Your task to perform on an android device: turn off location history Image 0: 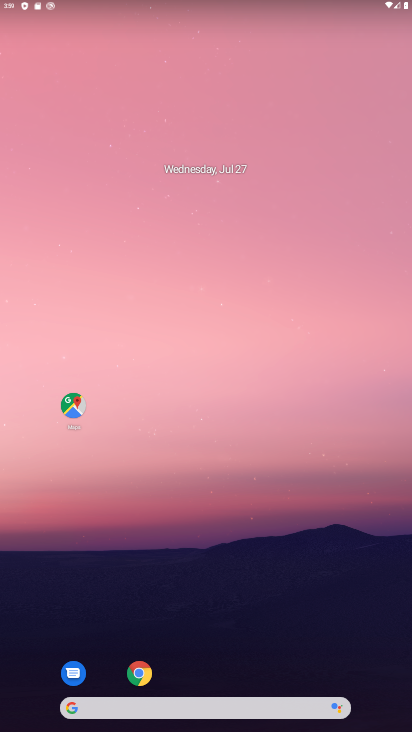
Step 0: press home button
Your task to perform on an android device: turn off location history Image 1: 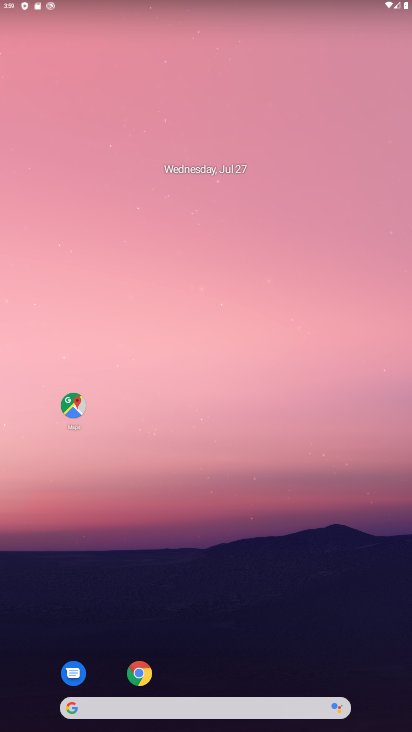
Step 1: drag from (346, 575) to (339, 63)
Your task to perform on an android device: turn off location history Image 2: 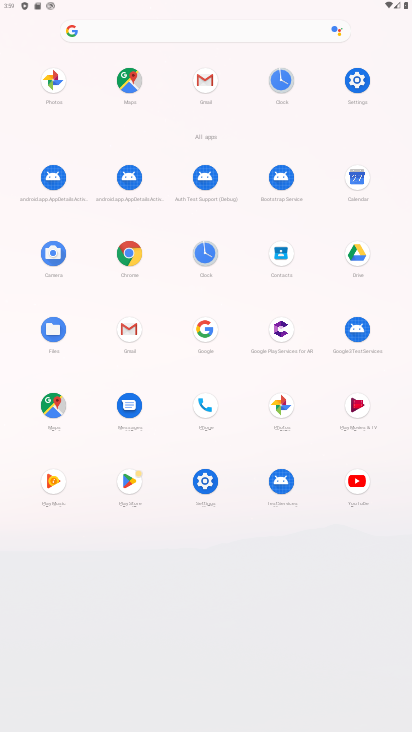
Step 2: click (203, 488)
Your task to perform on an android device: turn off location history Image 3: 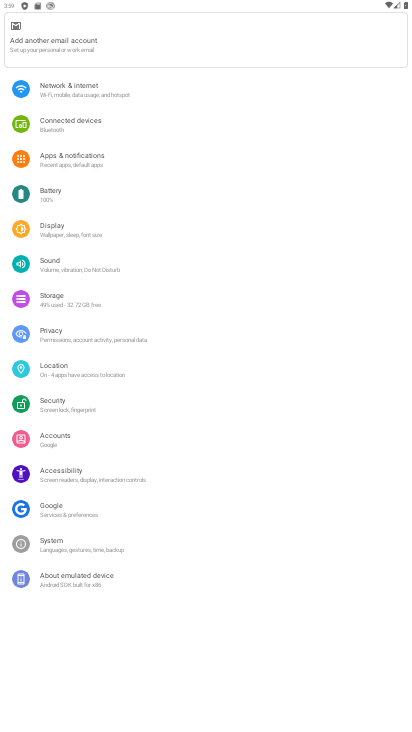
Step 3: drag from (263, 548) to (258, 340)
Your task to perform on an android device: turn off location history Image 4: 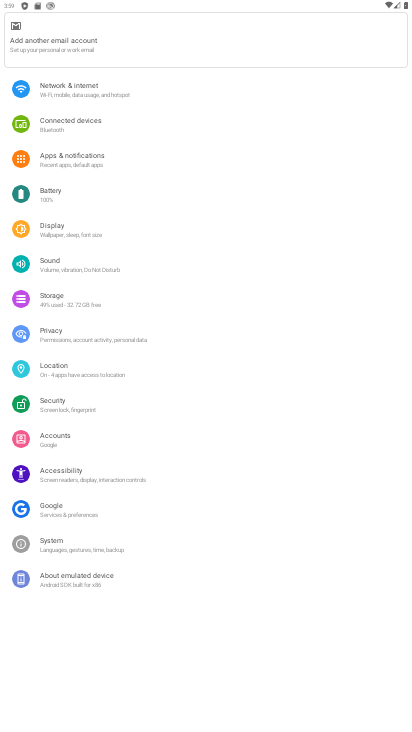
Step 4: drag from (289, 248) to (297, 398)
Your task to perform on an android device: turn off location history Image 5: 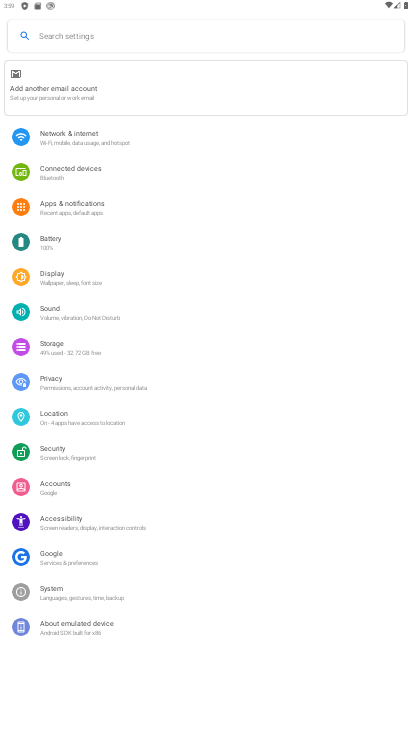
Step 5: click (118, 416)
Your task to perform on an android device: turn off location history Image 6: 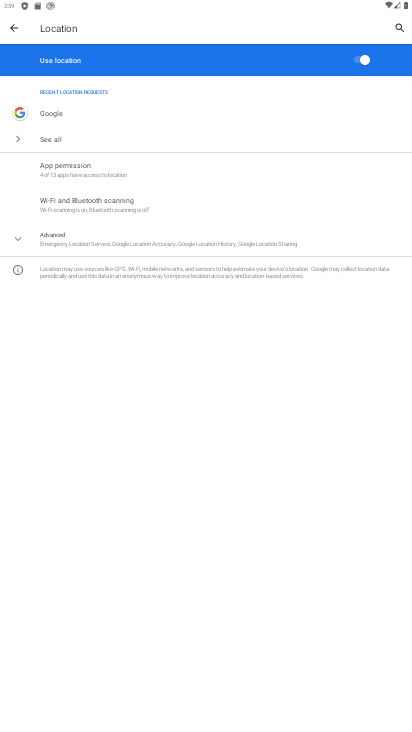
Step 6: click (173, 228)
Your task to perform on an android device: turn off location history Image 7: 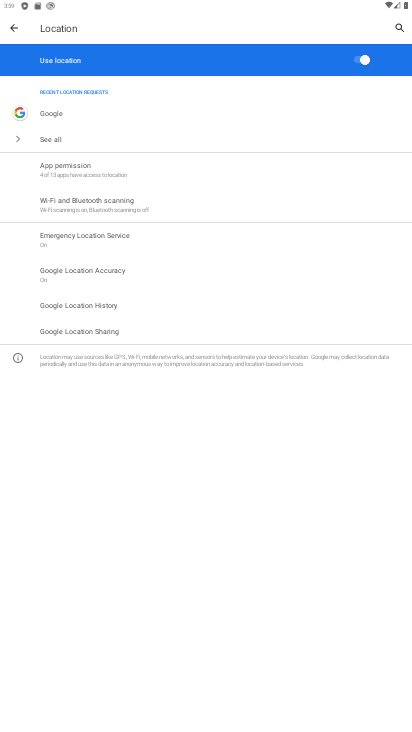
Step 7: click (108, 299)
Your task to perform on an android device: turn off location history Image 8: 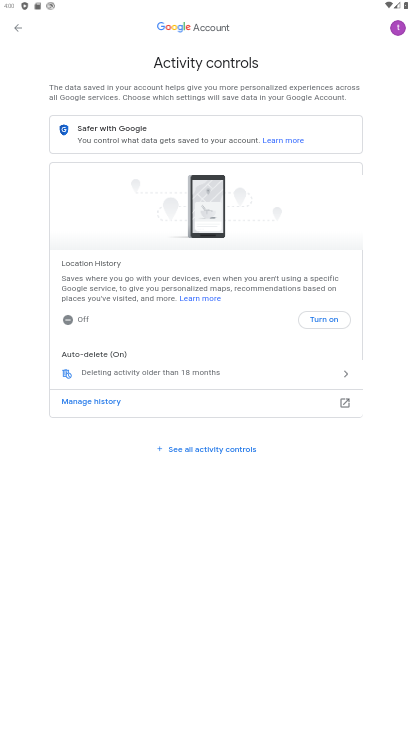
Step 8: task complete